Your task to perform on an android device: open device folders in google photos Image 0: 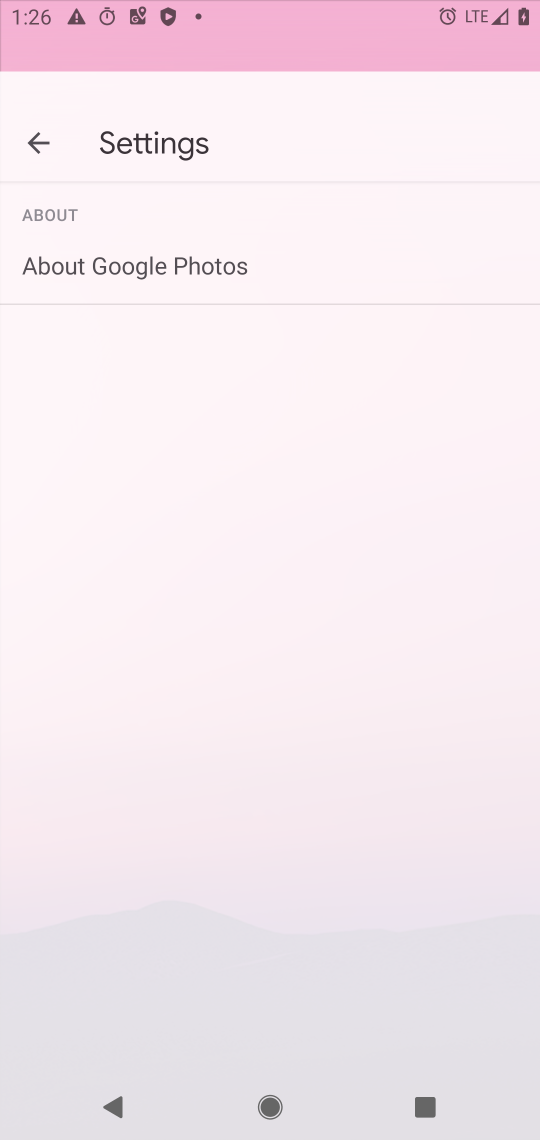
Step 0: press home button
Your task to perform on an android device: open device folders in google photos Image 1: 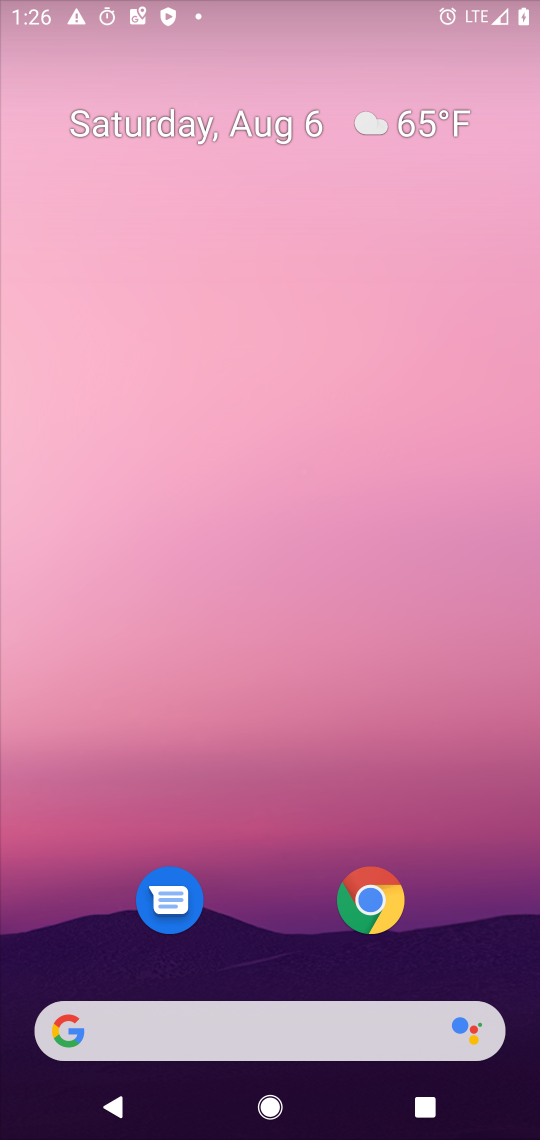
Step 1: press home button
Your task to perform on an android device: open device folders in google photos Image 2: 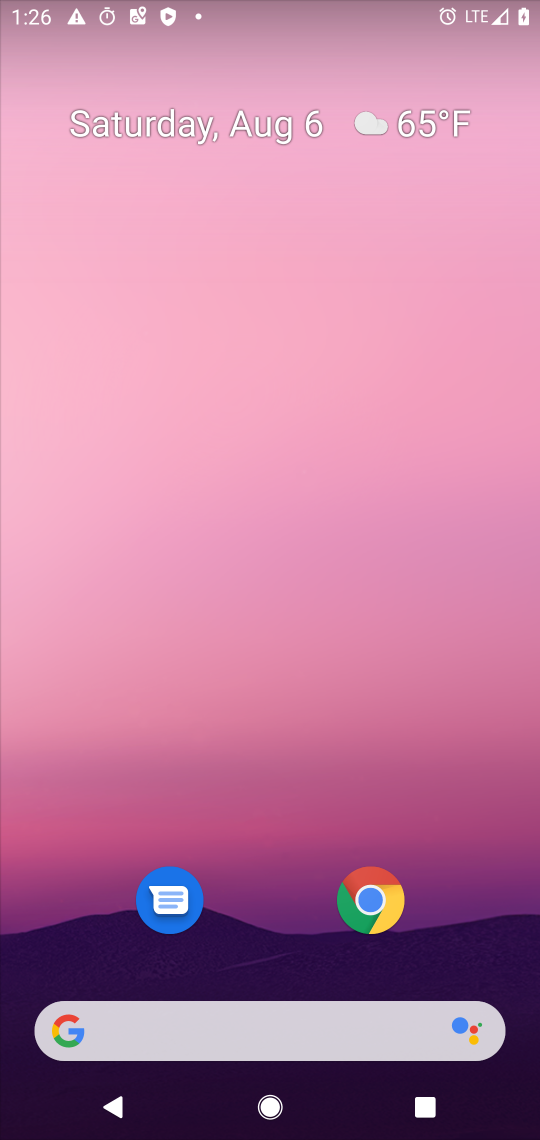
Step 2: drag from (270, 955) to (270, 159)
Your task to perform on an android device: open device folders in google photos Image 3: 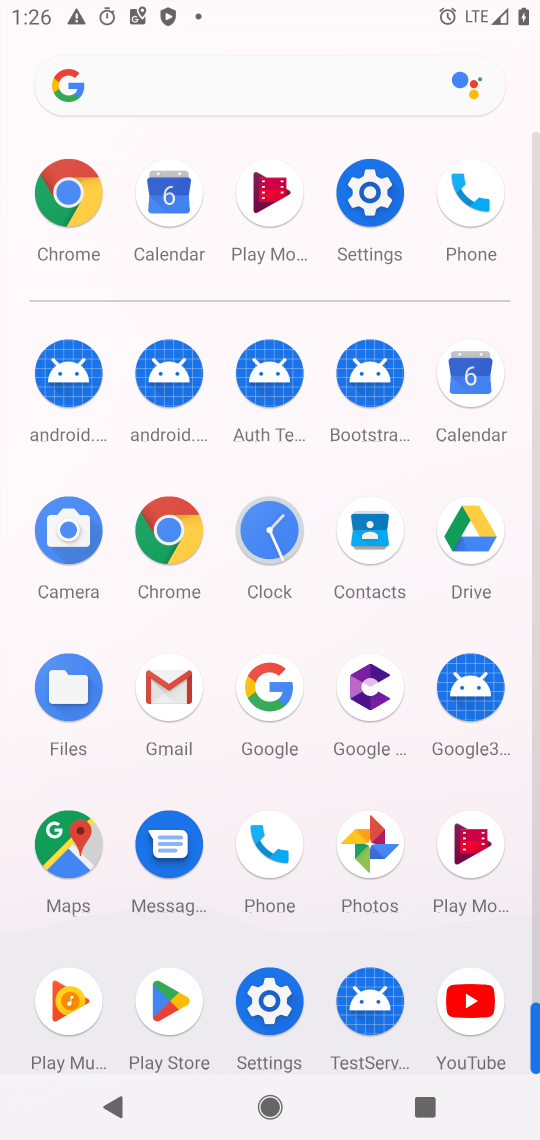
Step 3: click (357, 835)
Your task to perform on an android device: open device folders in google photos Image 4: 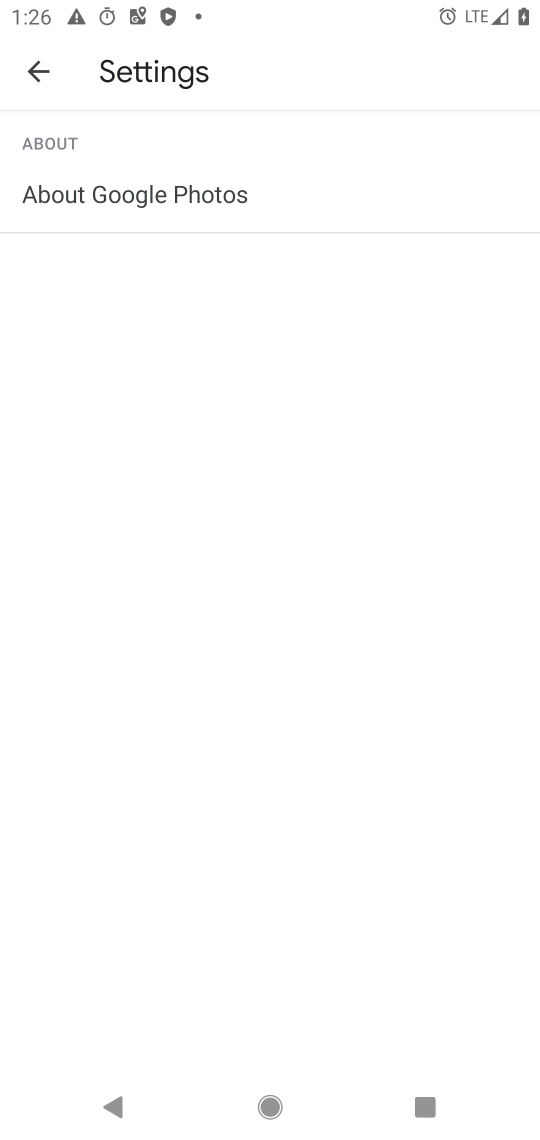
Step 4: click (37, 69)
Your task to perform on an android device: open device folders in google photos Image 5: 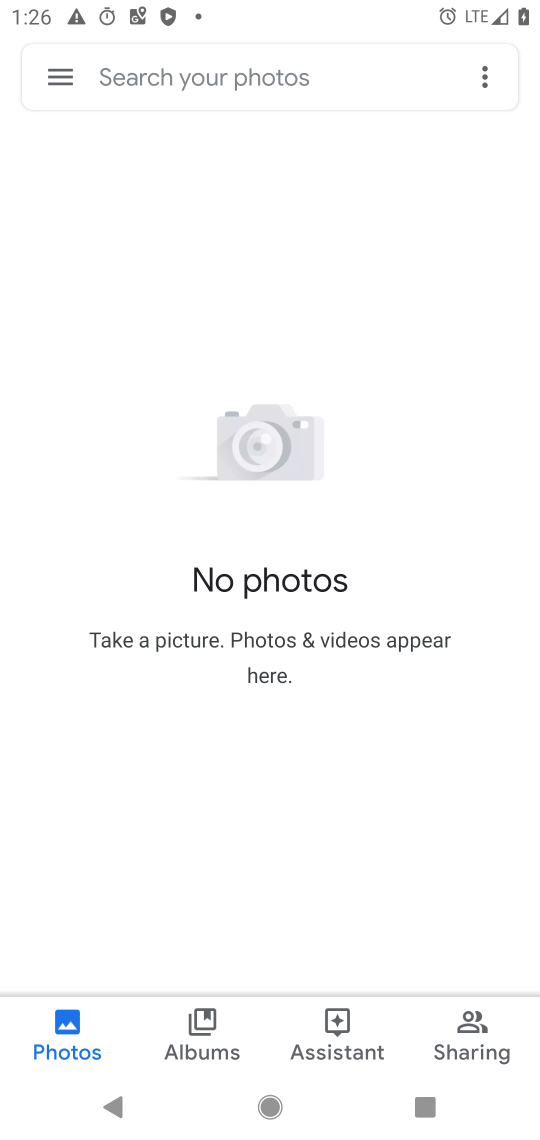
Step 5: click (58, 68)
Your task to perform on an android device: open device folders in google photos Image 6: 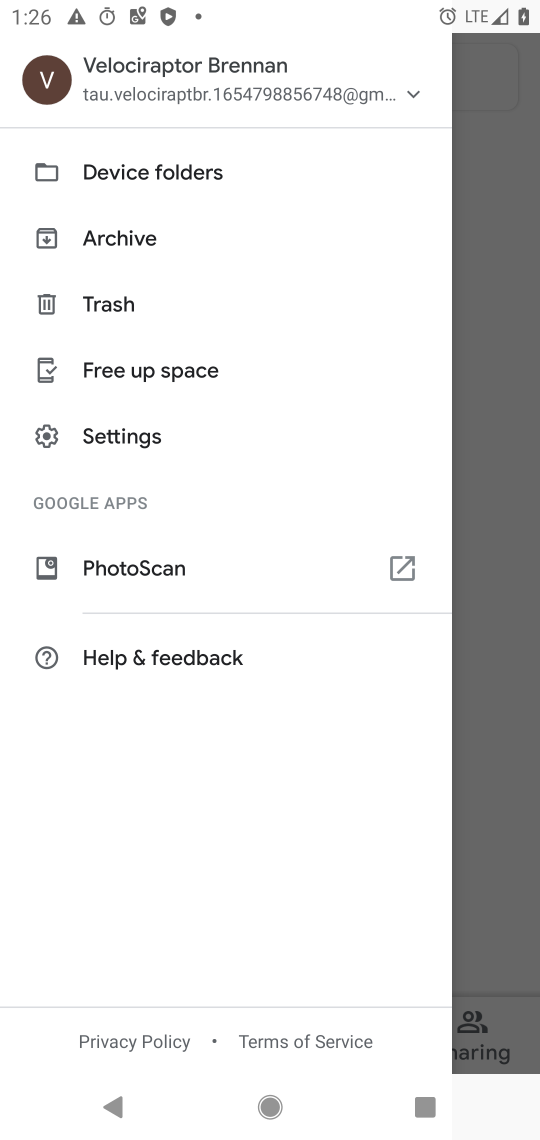
Step 6: click (164, 175)
Your task to perform on an android device: open device folders in google photos Image 7: 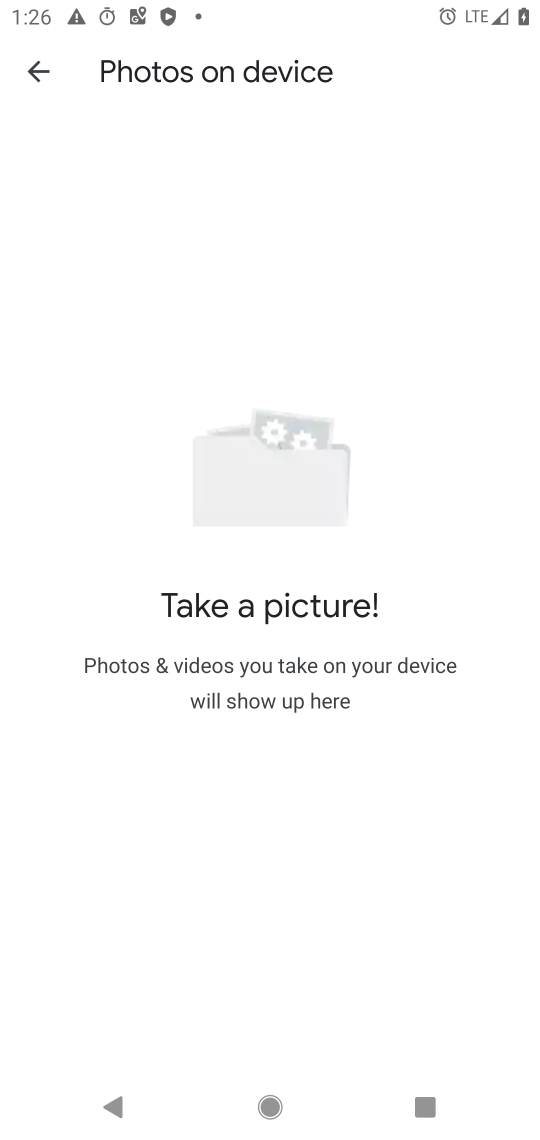
Step 7: task complete